Your task to perform on an android device: snooze an email in the gmail app Image 0: 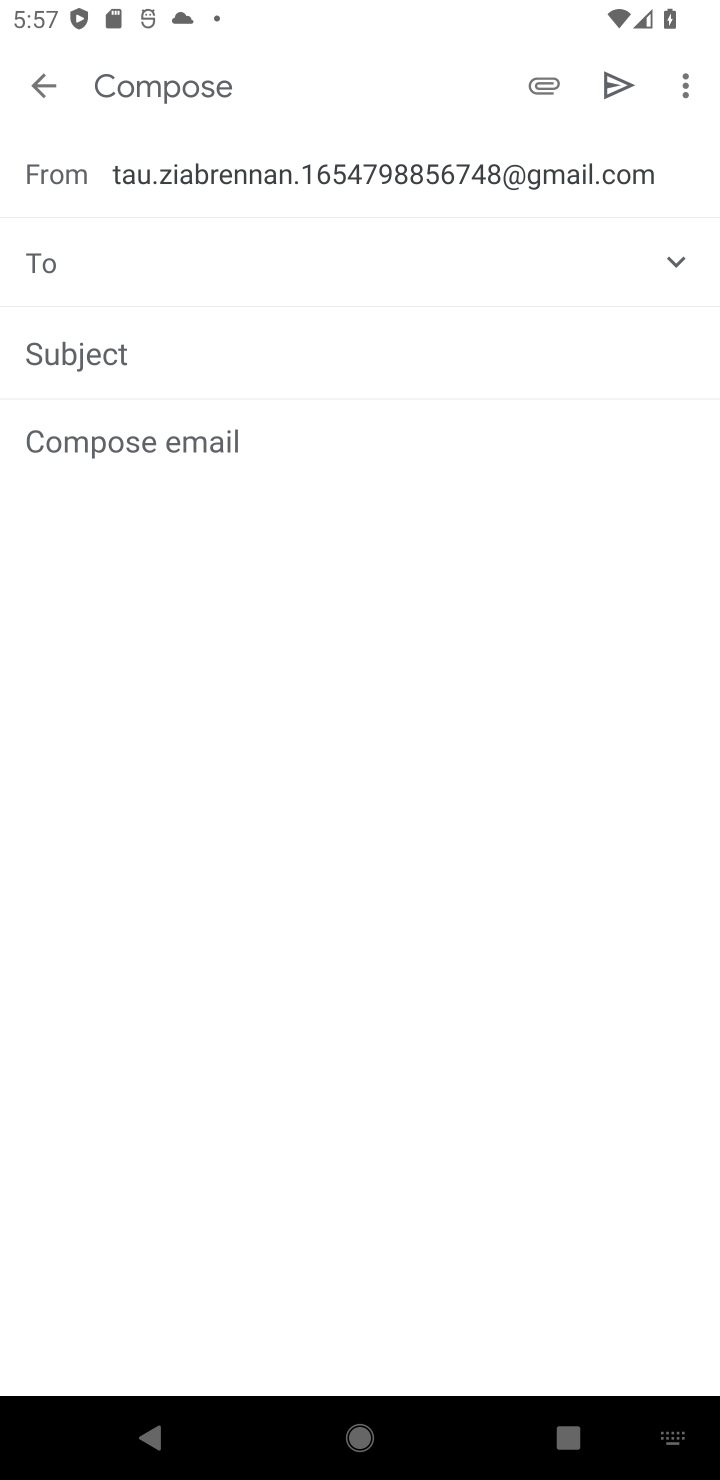
Step 0: press home button
Your task to perform on an android device: snooze an email in the gmail app Image 1: 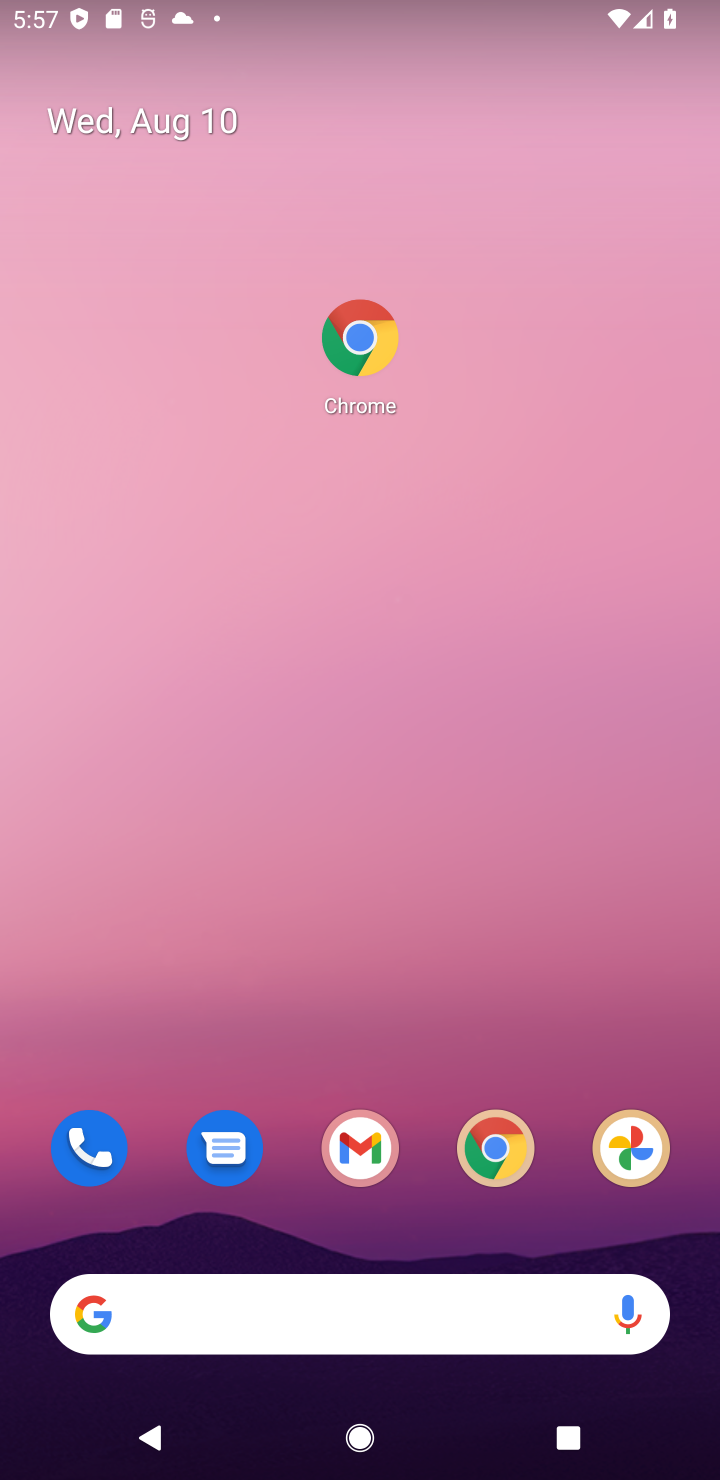
Step 1: click (356, 1175)
Your task to perform on an android device: snooze an email in the gmail app Image 2: 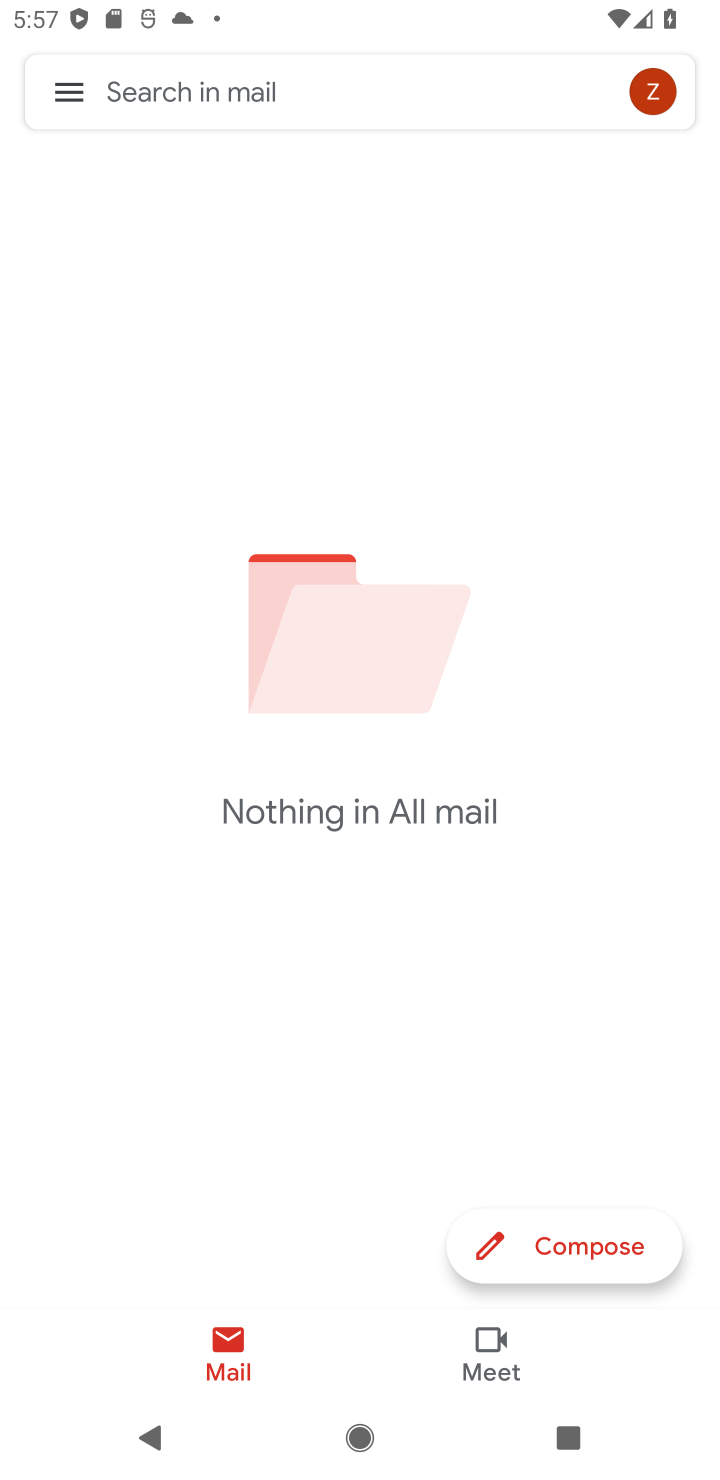
Step 2: click (80, 99)
Your task to perform on an android device: snooze an email in the gmail app Image 3: 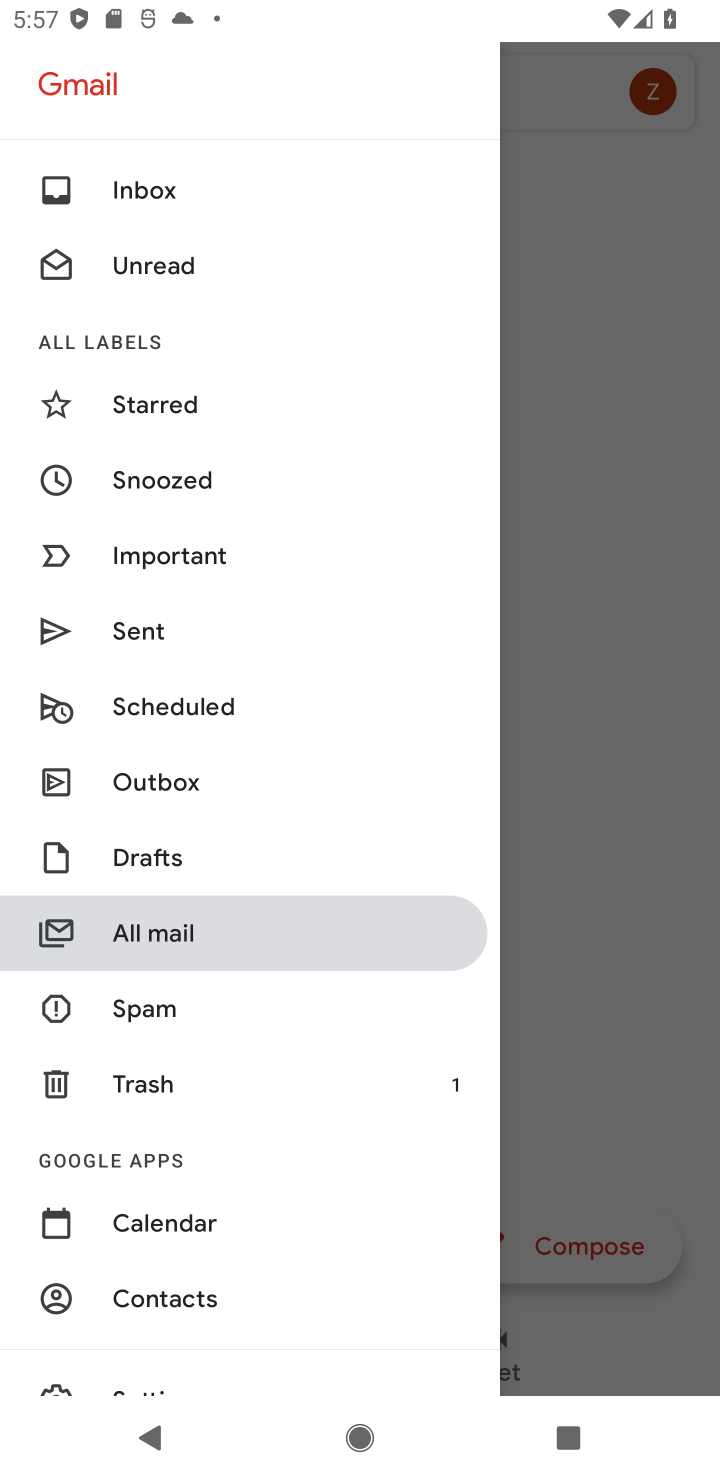
Step 3: click (156, 928)
Your task to perform on an android device: snooze an email in the gmail app Image 4: 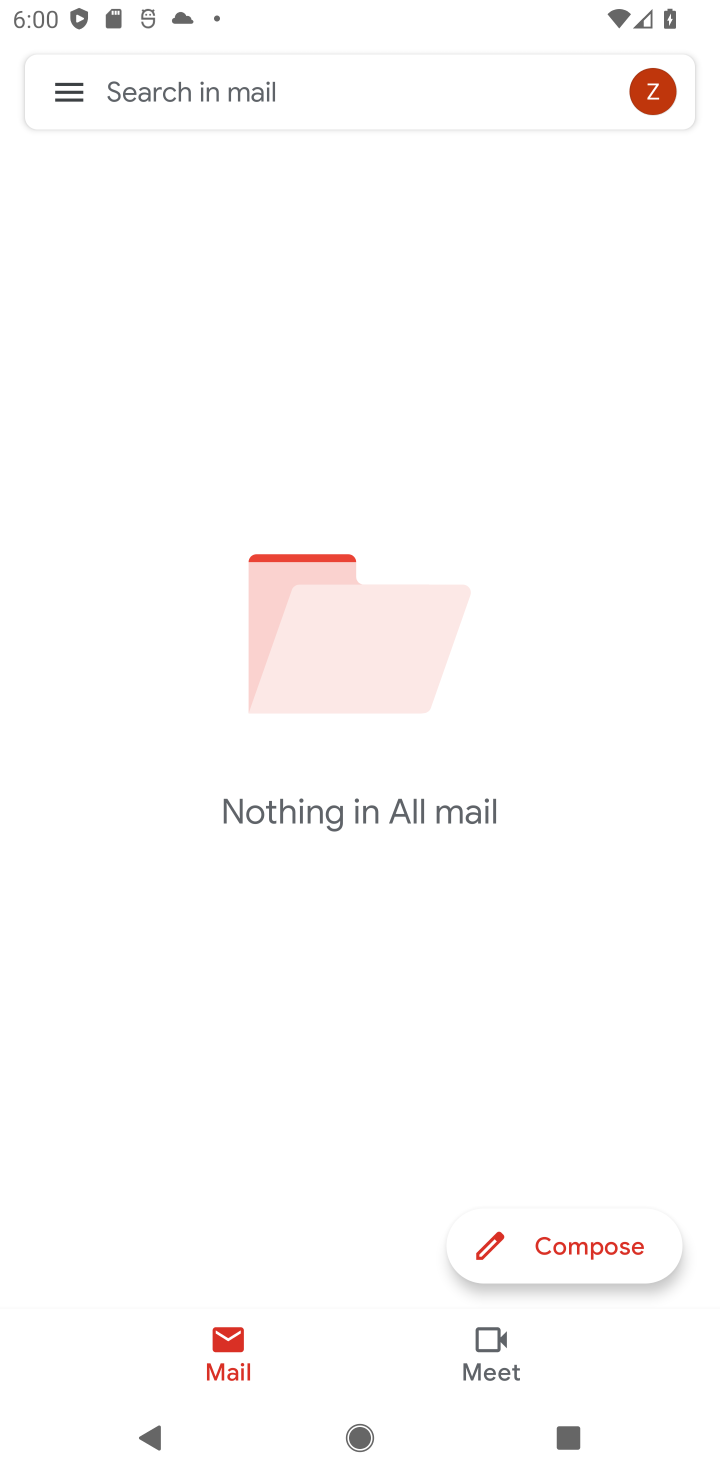
Step 4: task complete